Your task to perform on an android device: What's the weather? Image 0: 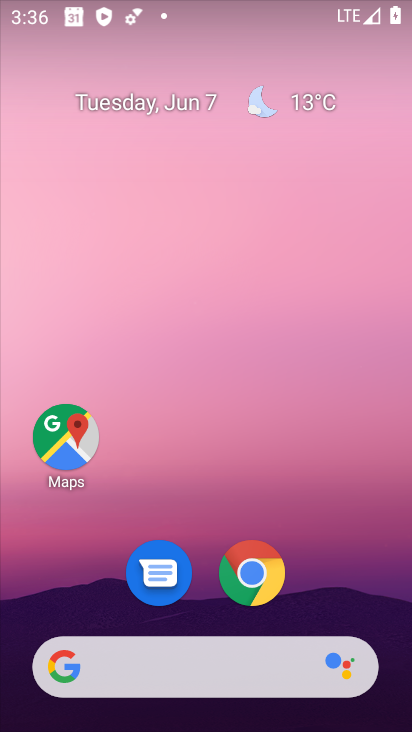
Step 0: click (268, 669)
Your task to perform on an android device: What's the weather? Image 1: 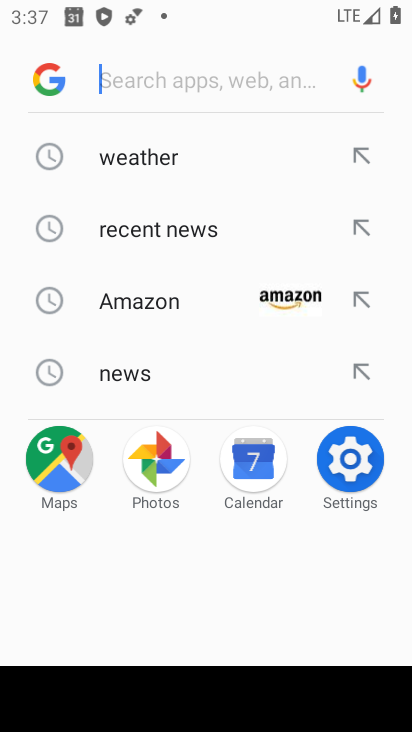
Step 1: click (191, 156)
Your task to perform on an android device: What's the weather? Image 2: 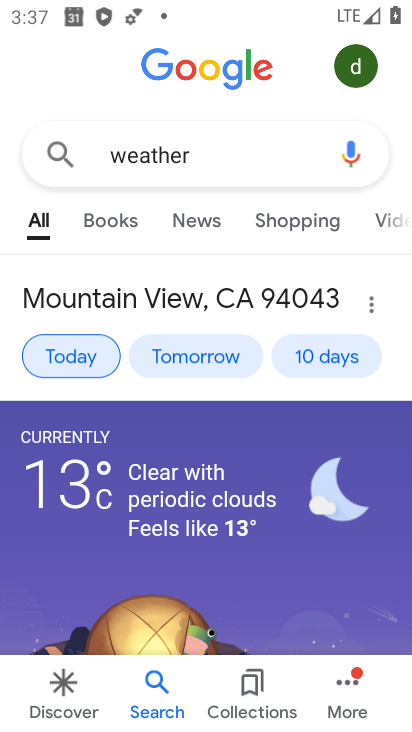
Step 2: task complete